Your task to perform on an android device: uninstall "Duolingo: language lessons" Image 0: 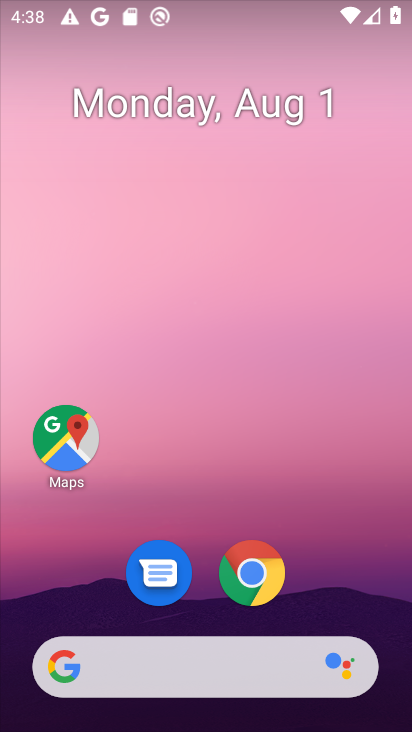
Step 0: drag from (301, 673) to (323, 99)
Your task to perform on an android device: uninstall "Duolingo: language lessons" Image 1: 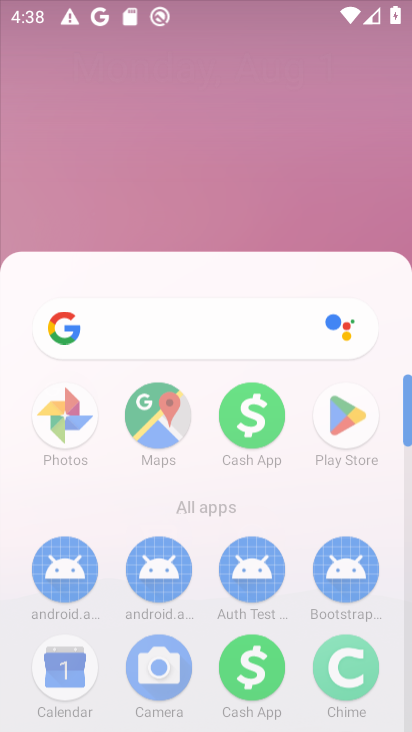
Step 1: drag from (223, 561) to (163, 104)
Your task to perform on an android device: uninstall "Duolingo: language lessons" Image 2: 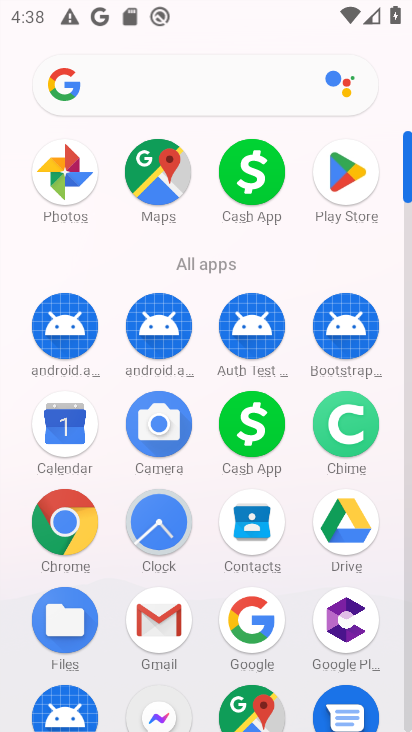
Step 2: drag from (210, 403) to (210, 256)
Your task to perform on an android device: uninstall "Duolingo: language lessons" Image 3: 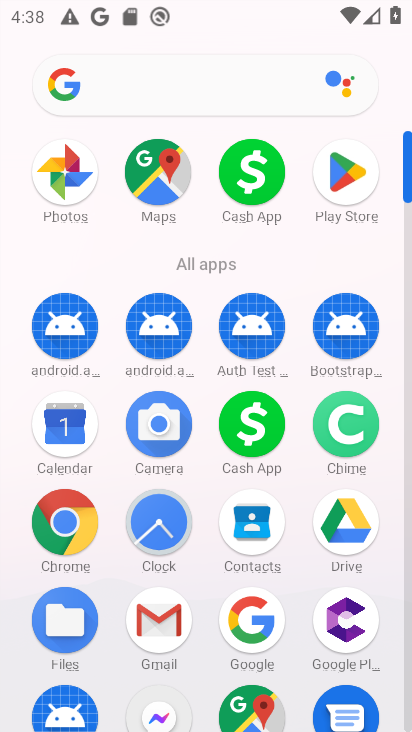
Step 3: click (340, 187)
Your task to perform on an android device: uninstall "Duolingo: language lessons" Image 4: 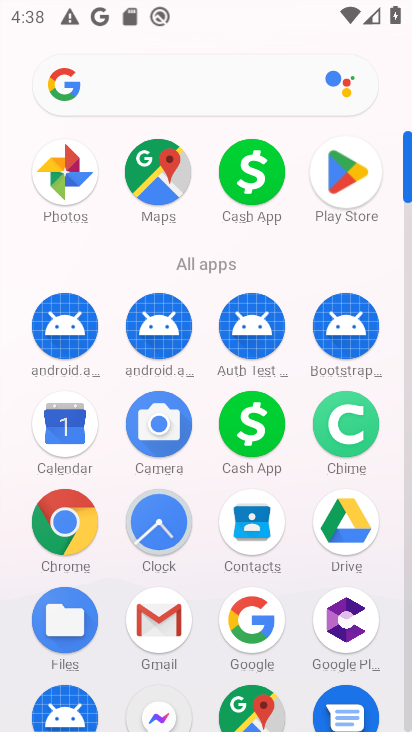
Step 4: click (342, 184)
Your task to perform on an android device: uninstall "Duolingo: language lessons" Image 5: 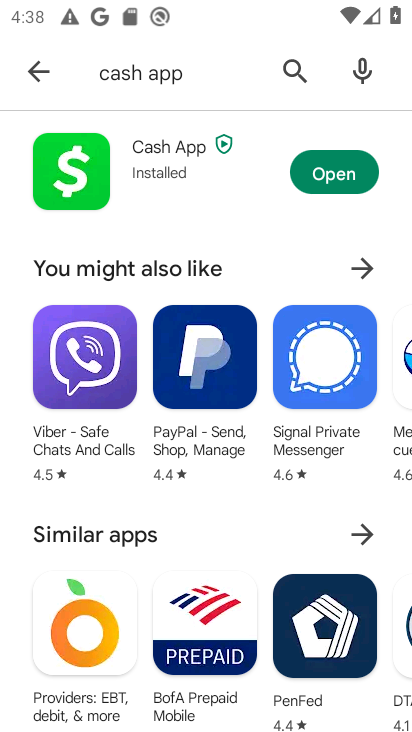
Step 5: click (17, 66)
Your task to perform on an android device: uninstall "Duolingo: language lessons" Image 6: 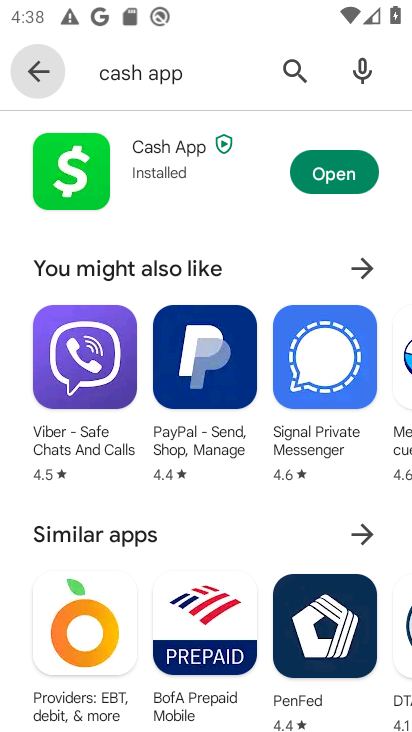
Step 6: click (27, 68)
Your task to perform on an android device: uninstall "Duolingo: language lessons" Image 7: 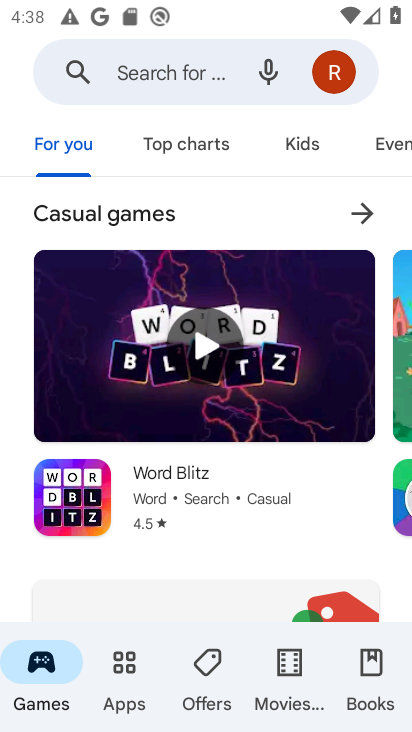
Step 7: click (158, 60)
Your task to perform on an android device: uninstall "Duolingo: language lessons" Image 8: 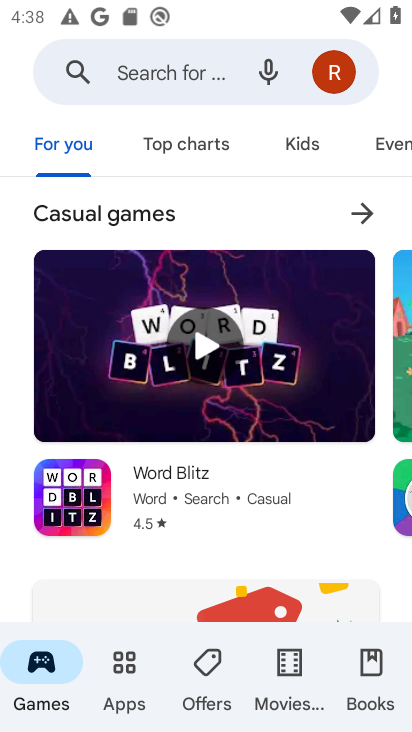
Step 8: click (158, 60)
Your task to perform on an android device: uninstall "Duolingo: language lessons" Image 9: 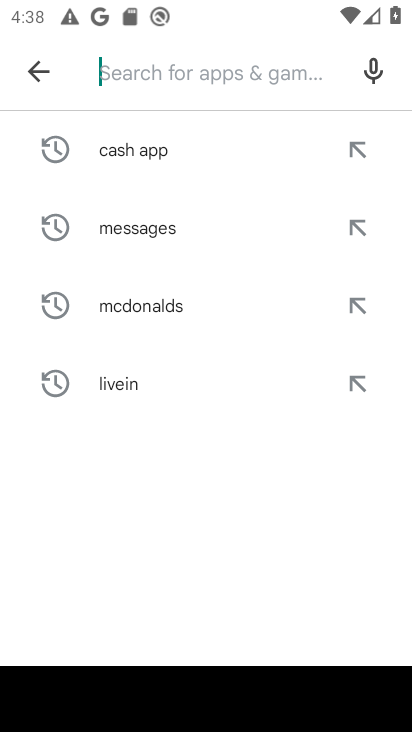
Step 9: type "duolingo"
Your task to perform on an android device: uninstall "Duolingo: language lessons" Image 10: 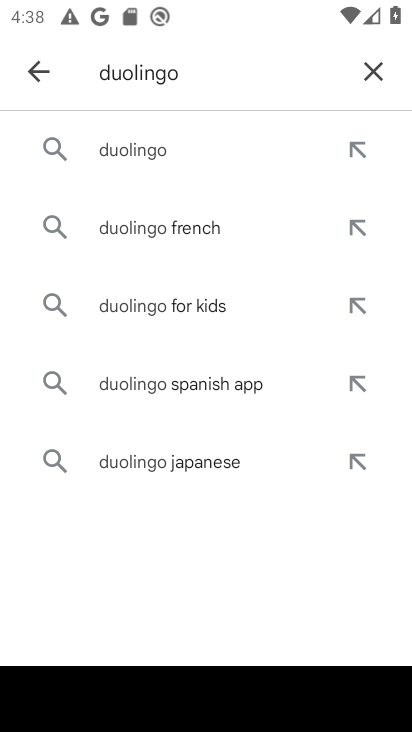
Step 10: click (125, 155)
Your task to perform on an android device: uninstall "Duolingo: language lessons" Image 11: 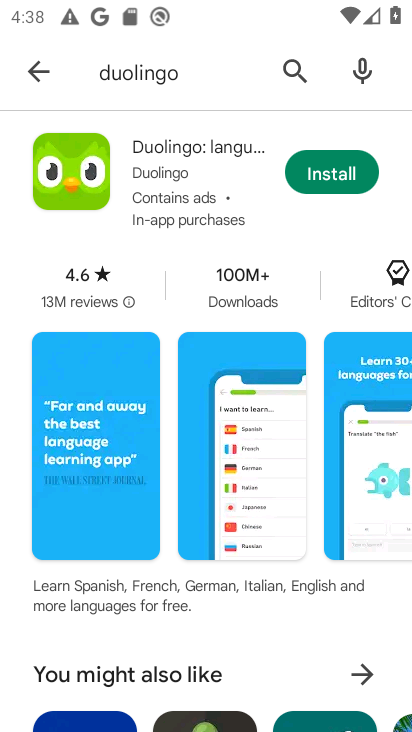
Step 11: task complete